Your task to perform on an android device: open device folders in google photos Image 0: 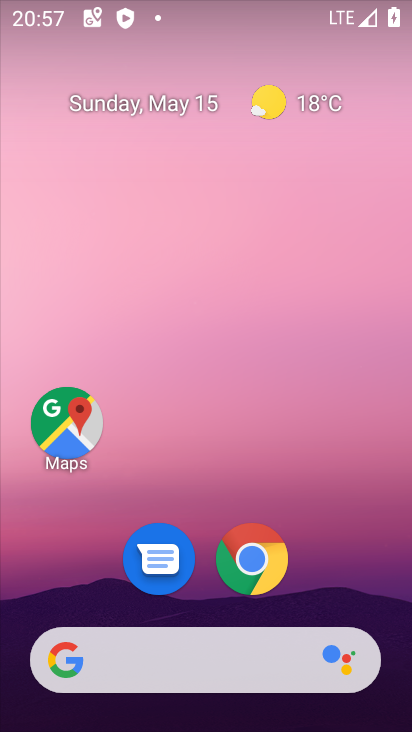
Step 0: drag from (326, 510) to (210, 76)
Your task to perform on an android device: open device folders in google photos Image 1: 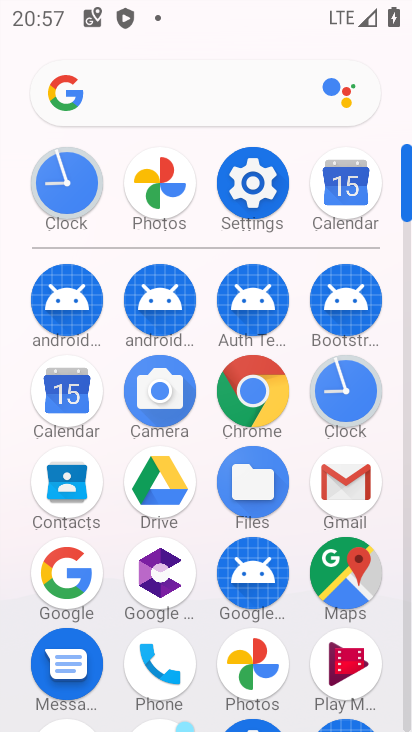
Step 1: click (243, 657)
Your task to perform on an android device: open device folders in google photos Image 2: 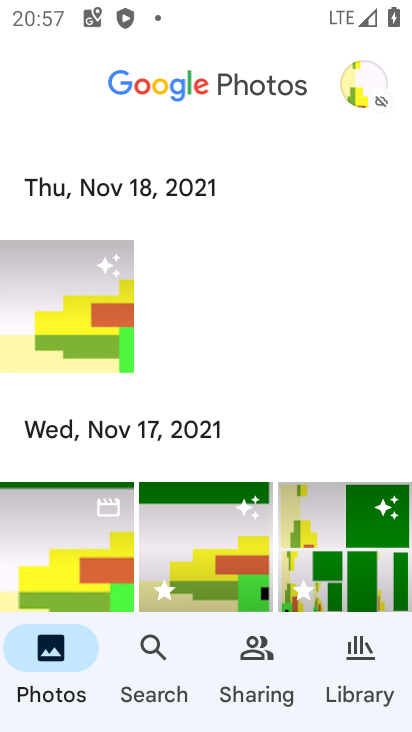
Step 2: click (144, 648)
Your task to perform on an android device: open device folders in google photos Image 3: 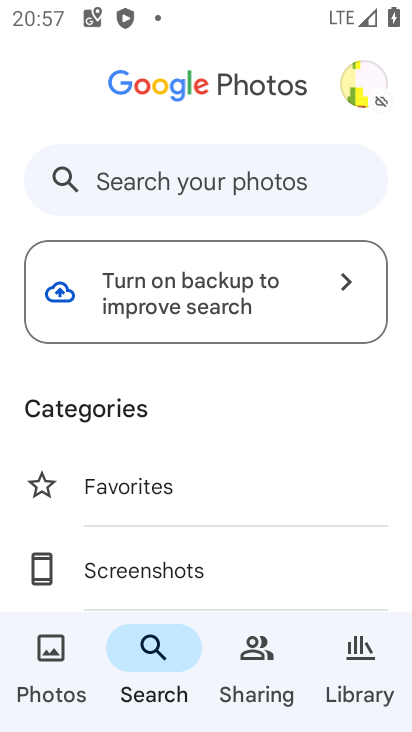
Step 3: click (172, 173)
Your task to perform on an android device: open device folders in google photos Image 4: 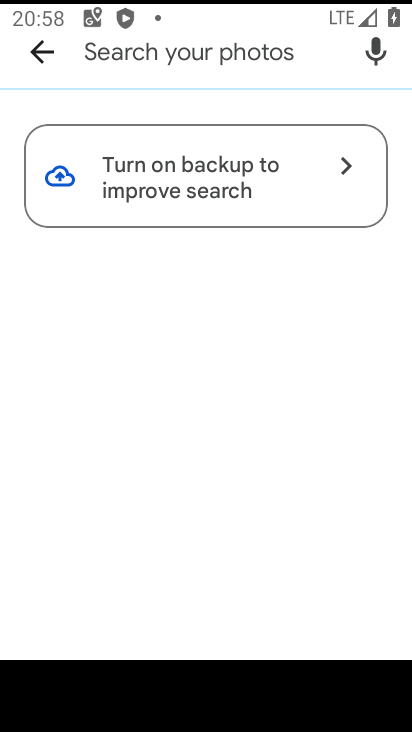
Step 4: type "device"
Your task to perform on an android device: open device folders in google photos Image 5: 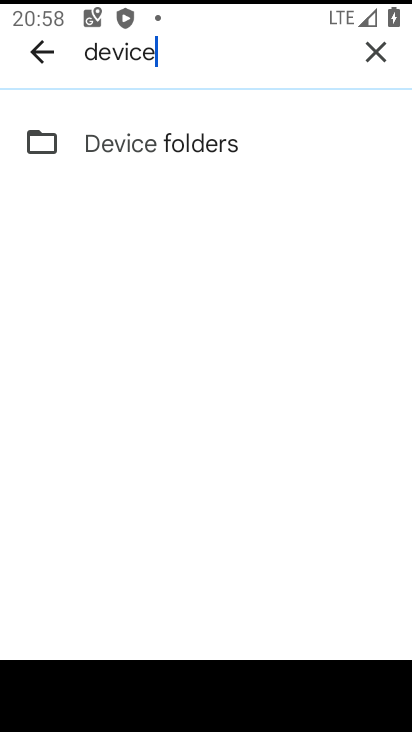
Step 5: click (170, 134)
Your task to perform on an android device: open device folders in google photos Image 6: 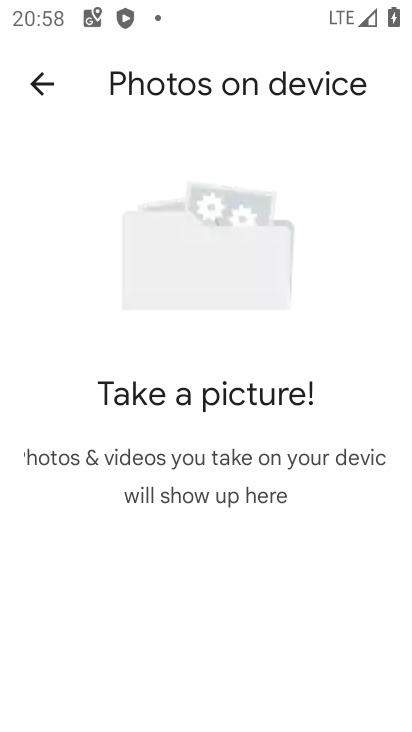
Step 6: task complete